Your task to perform on an android device: Google the capital of Uruguay Image 0: 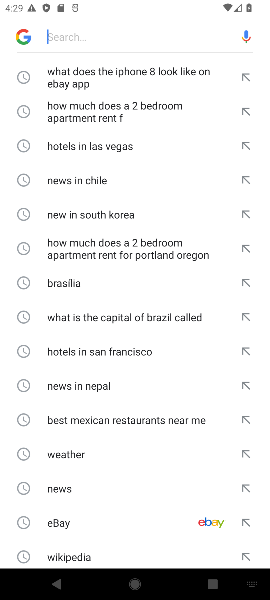
Step 0: click (136, 583)
Your task to perform on an android device: Google the capital of Uruguay Image 1: 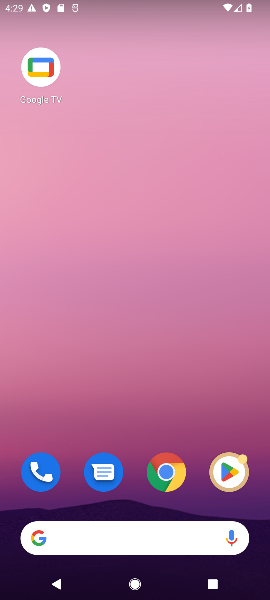
Step 1: click (165, 476)
Your task to perform on an android device: Google the capital of Uruguay Image 2: 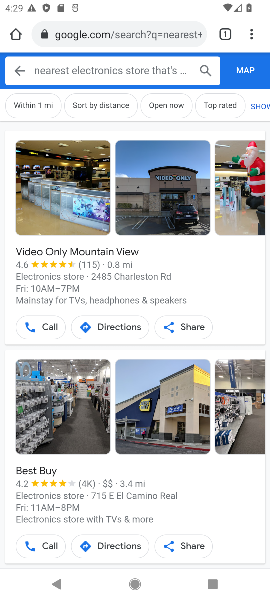
Step 2: click (95, 31)
Your task to perform on an android device: Google the capital of Uruguay Image 3: 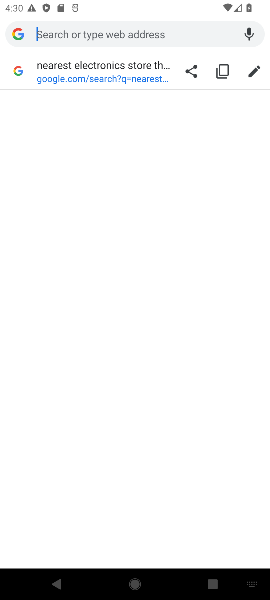
Step 3: type "capital of uruguay"
Your task to perform on an android device: Google the capital of Uruguay Image 4: 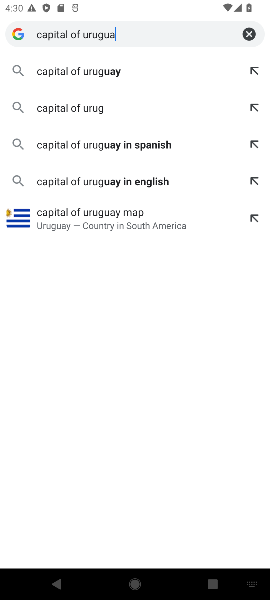
Step 4: press enter
Your task to perform on an android device: Google the capital of Uruguay Image 5: 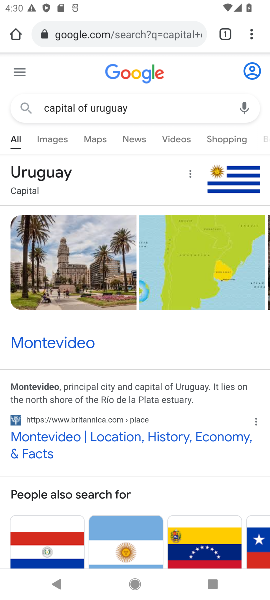
Step 5: task complete